Your task to perform on an android device: remove spam from my inbox in the gmail app Image 0: 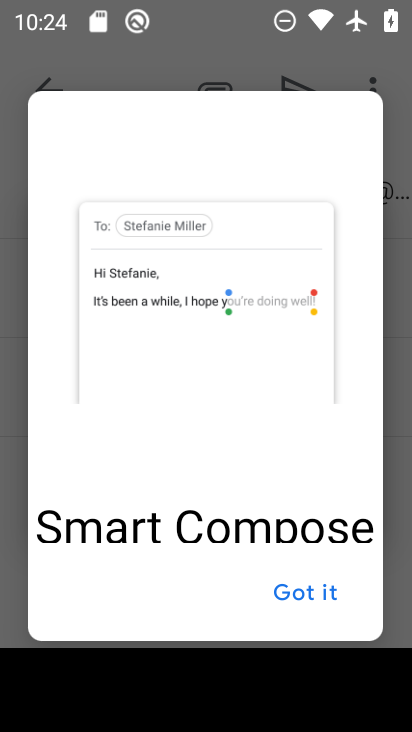
Step 0: press home button
Your task to perform on an android device: remove spam from my inbox in the gmail app Image 1: 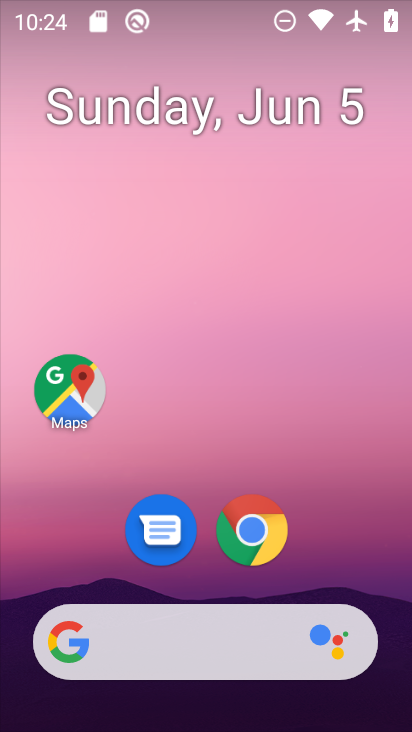
Step 1: drag from (390, 612) to (317, 73)
Your task to perform on an android device: remove spam from my inbox in the gmail app Image 2: 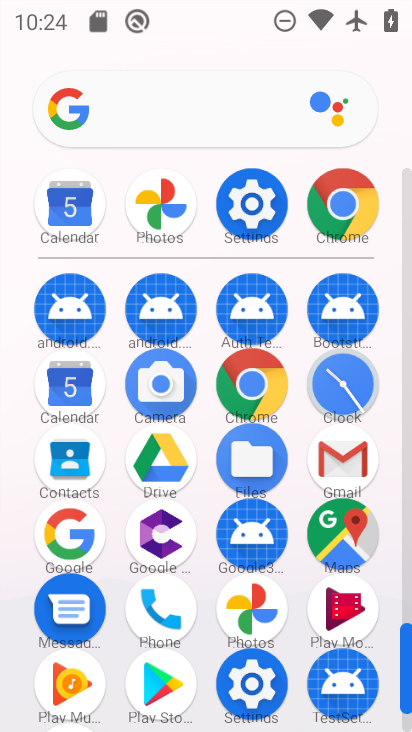
Step 2: click (342, 456)
Your task to perform on an android device: remove spam from my inbox in the gmail app Image 3: 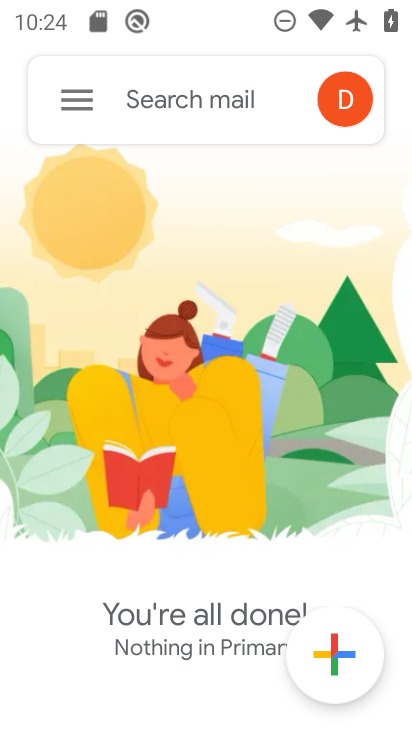
Step 3: click (82, 102)
Your task to perform on an android device: remove spam from my inbox in the gmail app Image 4: 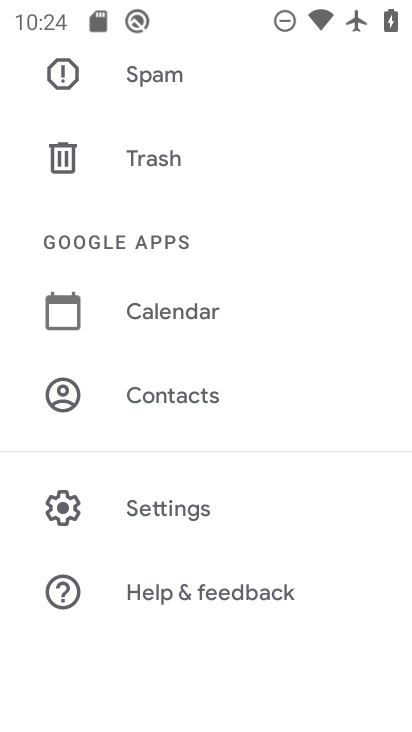
Step 4: click (153, 74)
Your task to perform on an android device: remove spam from my inbox in the gmail app Image 5: 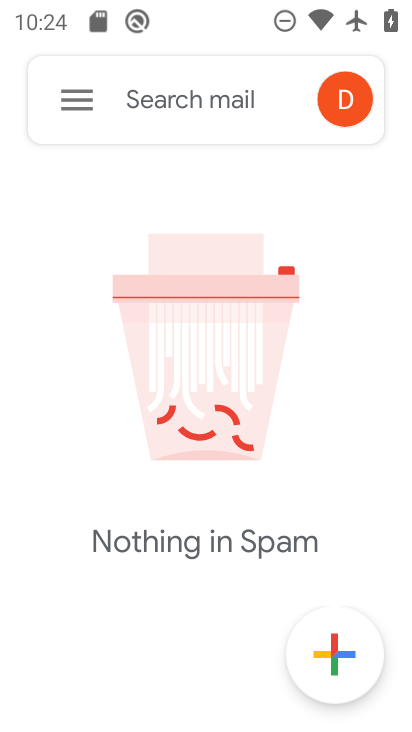
Step 5: task complete